Your task to perform on an android device: turn notification dots on Image 0: 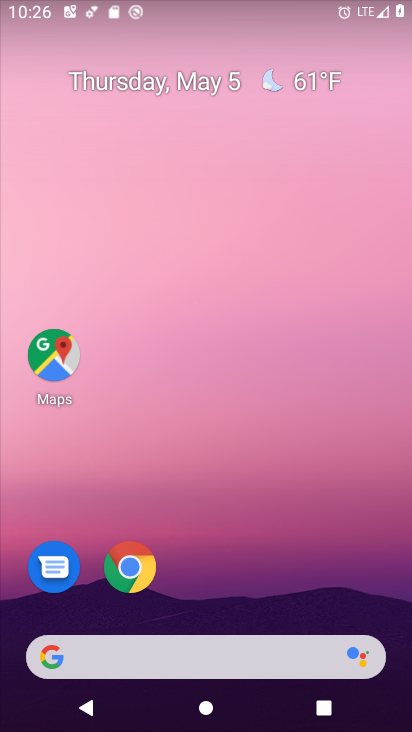
Step 0: drag from (262, 583) to (272, 160)
Your task to perform on an android device: turn notification dots on Image 1: 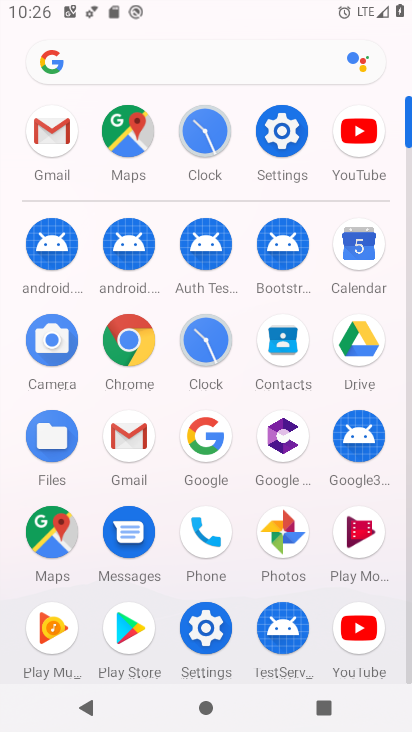
Step 1: click (278, 138)
Your task to perform on an android device: turn notification dots on Image 2: 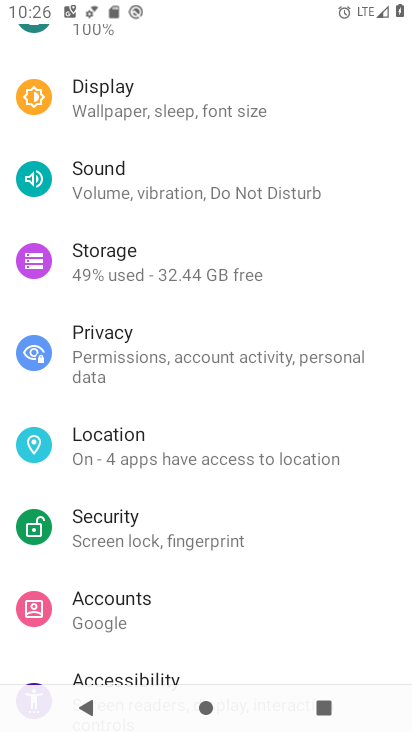
Step 2: drag from (211, 154) to (211, 509)
Your task to perform on an android device: turn notification dots on Image 3: 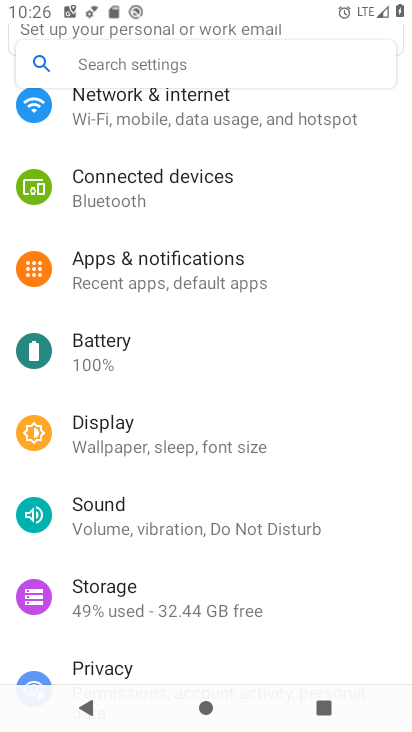
Step 3: click (129, 271)
Your task to perform on an android device: turn notification dots on Image 4: 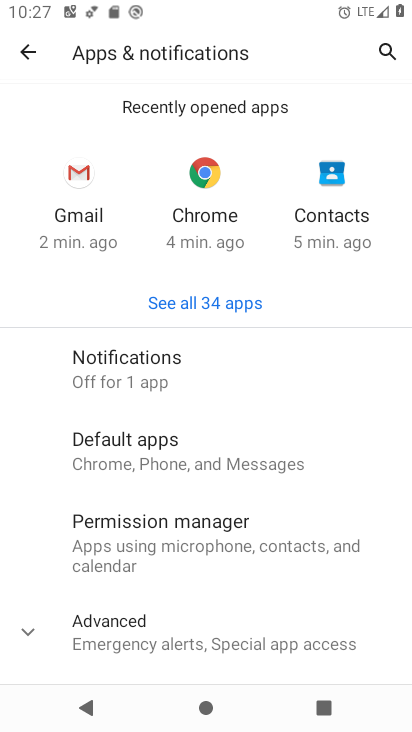
Step 4: drag from (208, 601) to (244, 404)
Your task to perform on an android device: turn notification dots on Image 5: 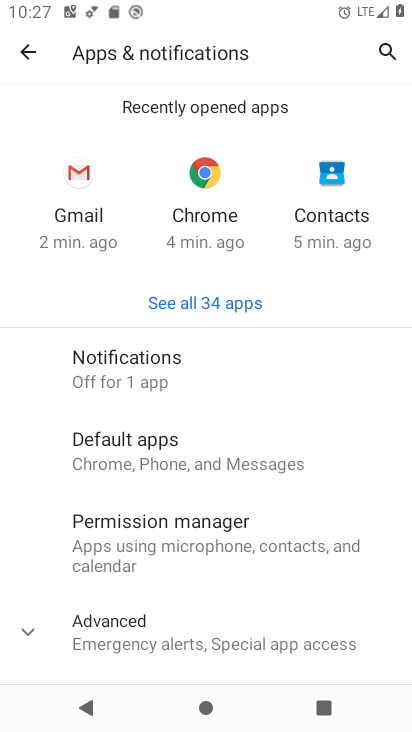
Step 5: click (155, 373)
Your task to perform on an android device: turn notification dots on Image 6: 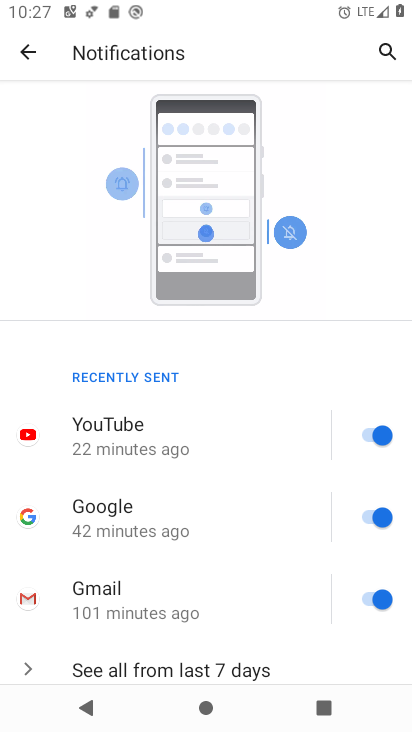
Step 6: drag from (190, 648) to (218, 352)
Your task to perform on an android device: turn notification dots on Image 7: 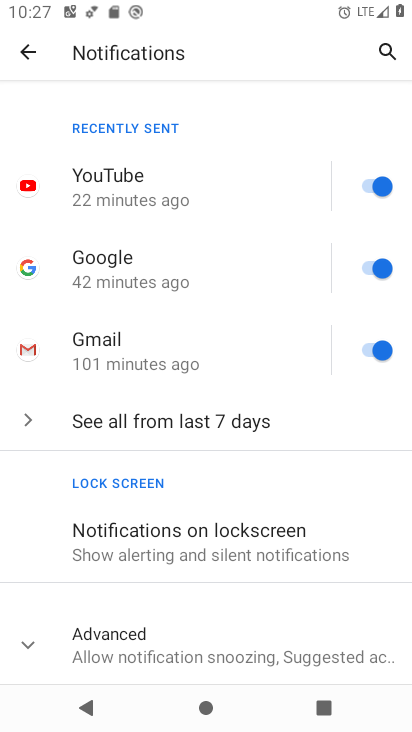
Step 7: click (212, 651)
Your task to perform on an android device: turn notification dots on Image 8: 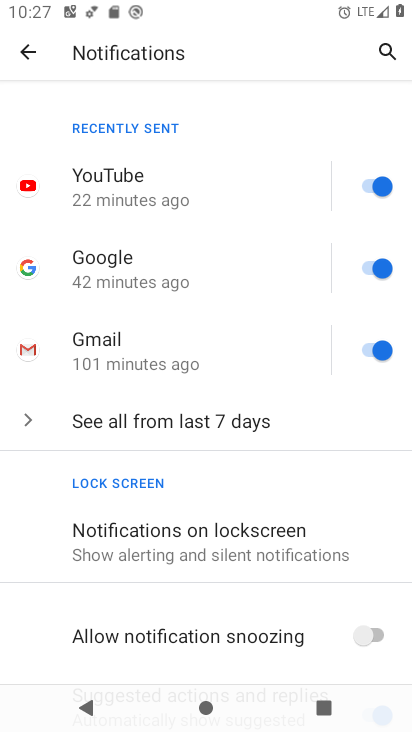
Step 8: task complete